Your task to perform on an android device: Open display settings Image 0: 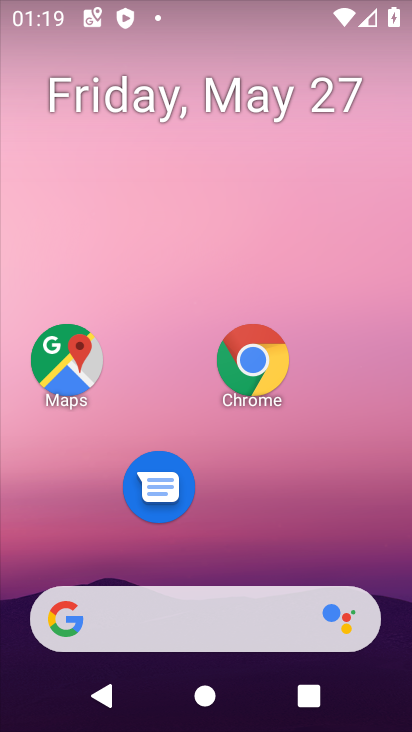
Step 0: drag from (272, 513) to (303, 117)
Your task to perform on an android device: Open display settings Image 1: 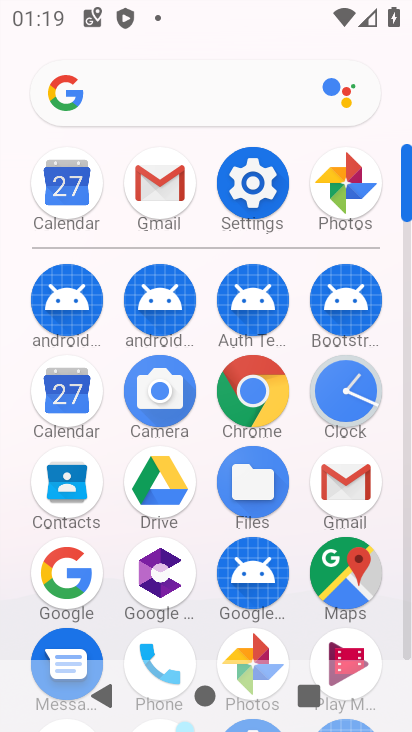
Step 1: click (242, 170)
Your task to perform on an android device: Open display settings Image 2: 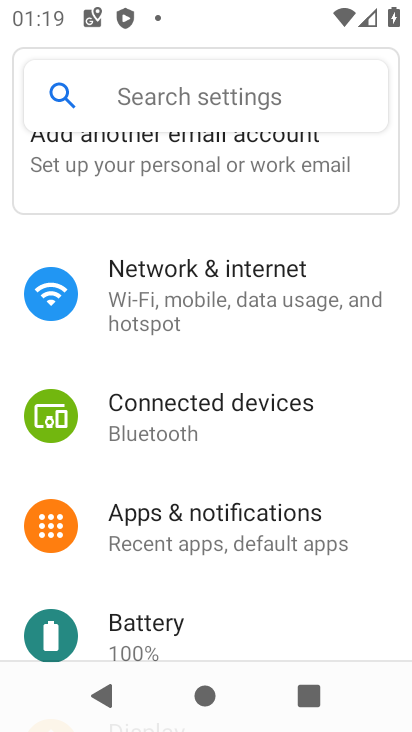
Step 2: drag from (340, 558) to (319, 136)
Your task to perform on an android device: Open display settings Image 3: 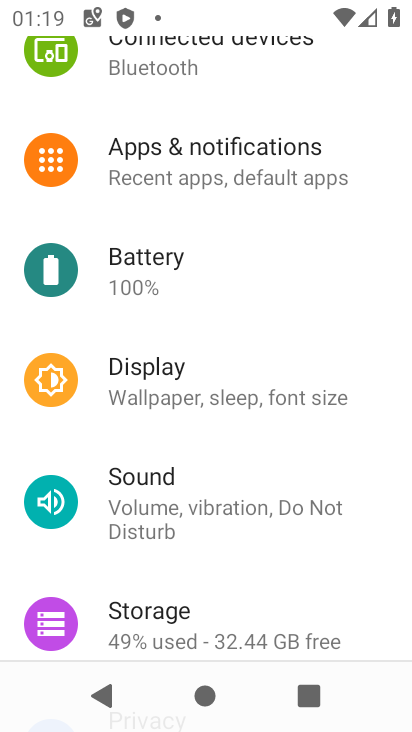
Step 3: click (142, 376)
Your task to perform on an android device: Open display settings Image 4: 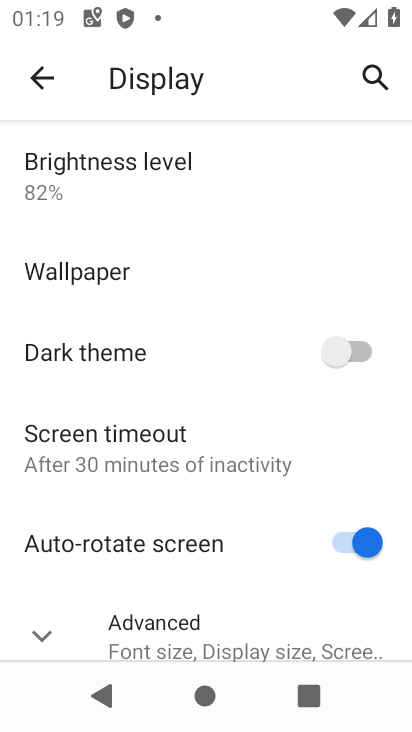
Step 4: task complete